Your task to perform on an android device: change notifications settings Image 0: 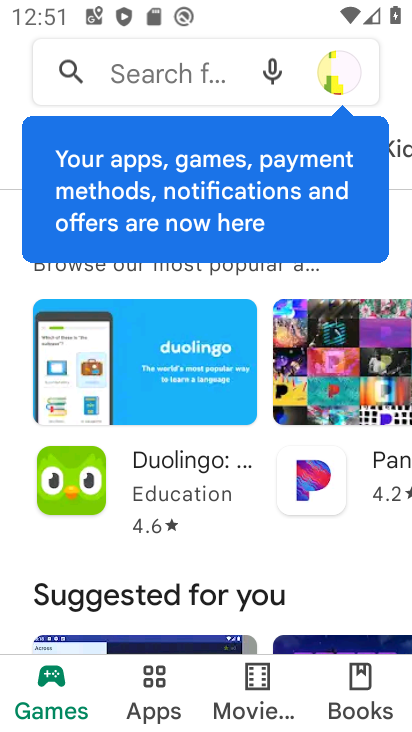
Step 0: press home button
Your task to perform on an android device: change notifications settings Image 1: 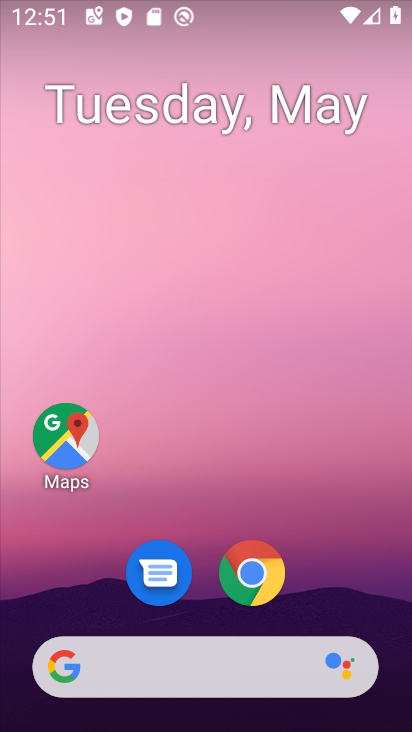
Step 1: drag from (356, 540) to (305, 85)
Your task to perform on an android device: change notifications settings Image 2: 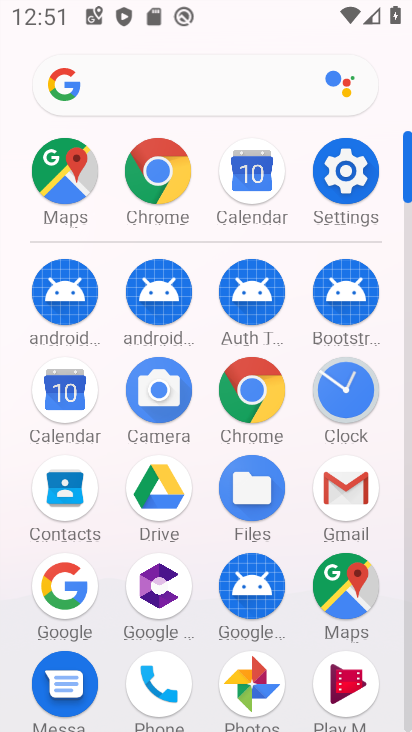
Step 2: click (330, 180)
Your task to perform on an android device: change notifications settings Image 3: 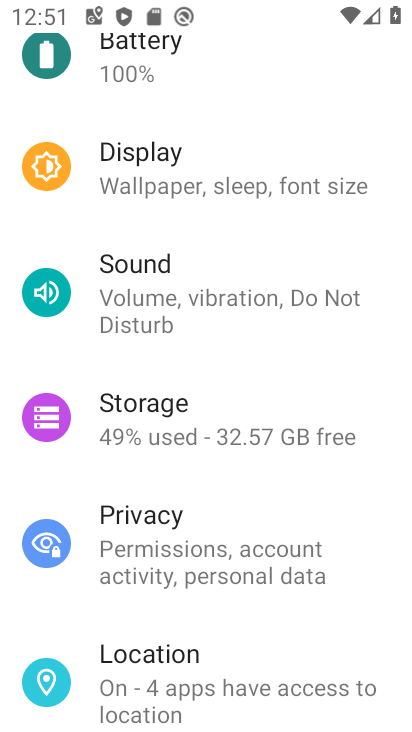
Step 3: drag from (302, 460) to (299, 500)
Your task to perform on an android device: change notifications settings Image 4: 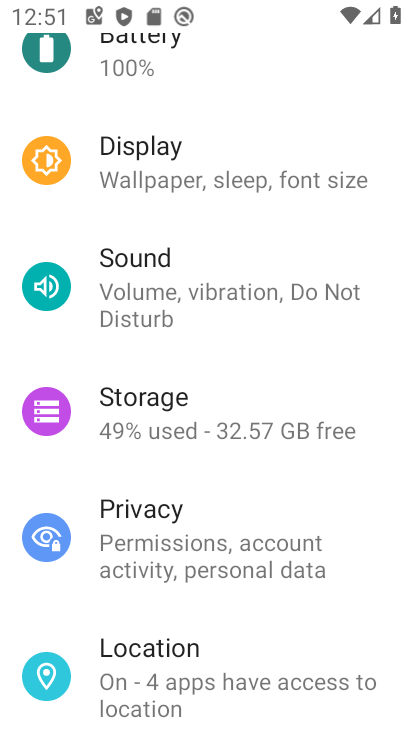
Step 4: drag from (321, 274) to (320, 459)
Your task to perform on an android device: change notifications settings Image 5: 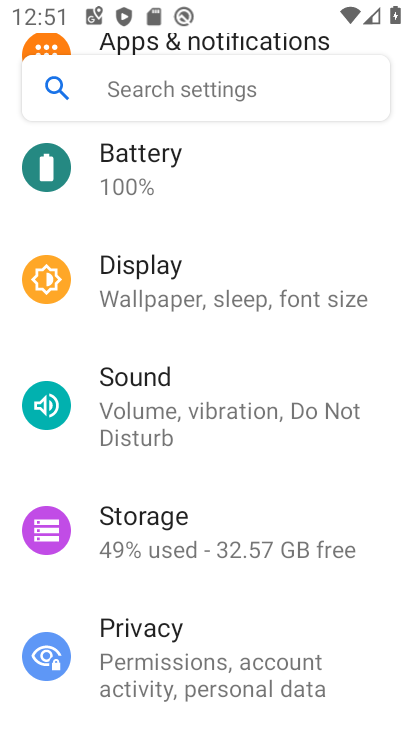
Step 5: drag from (343, 374) to (369, 590)
Your task to perform on an android device: change notifications settings Image 6: 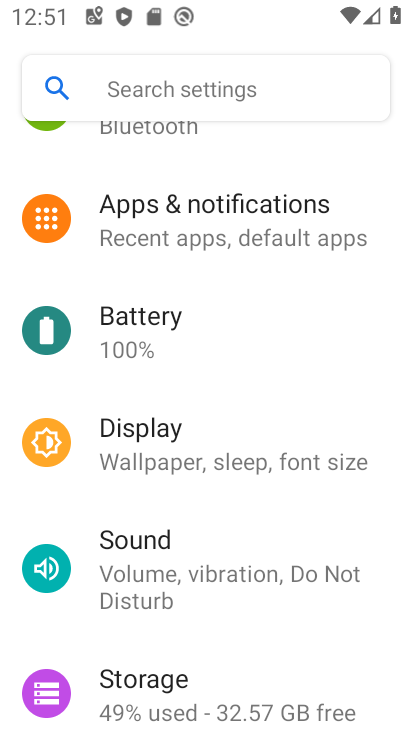
Step 6: click (226, 199)
Your task to perform on an android device: change notifications settings Image 7: 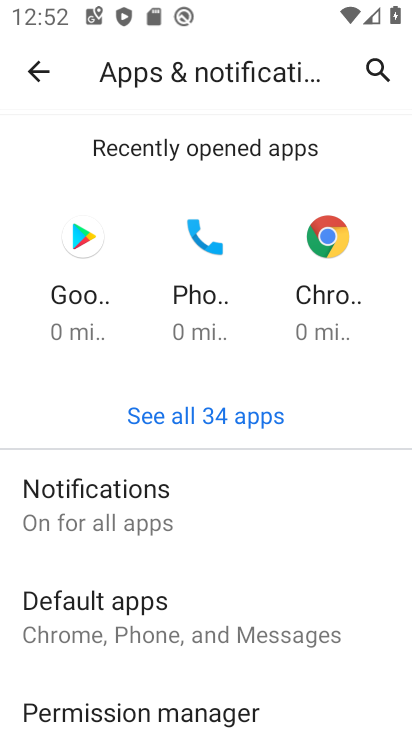
Step 7: click (146, 483)
Your task to perform on an android device: change notifications settings Image 8: 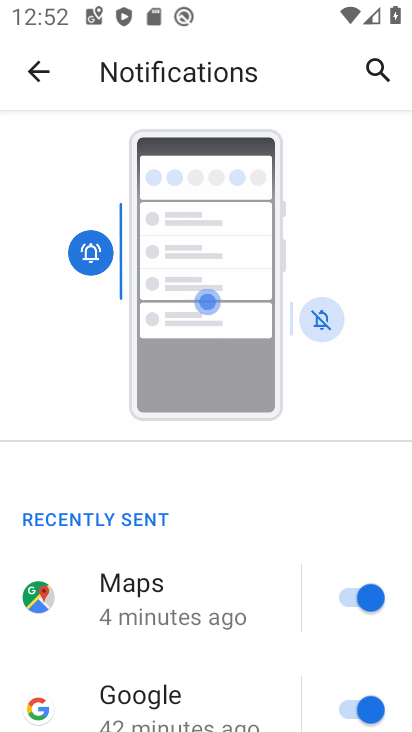
Step 8: drag from (213, 535) to (254, 267)
Your task to perform on an android device: change notifications settings Image 9: 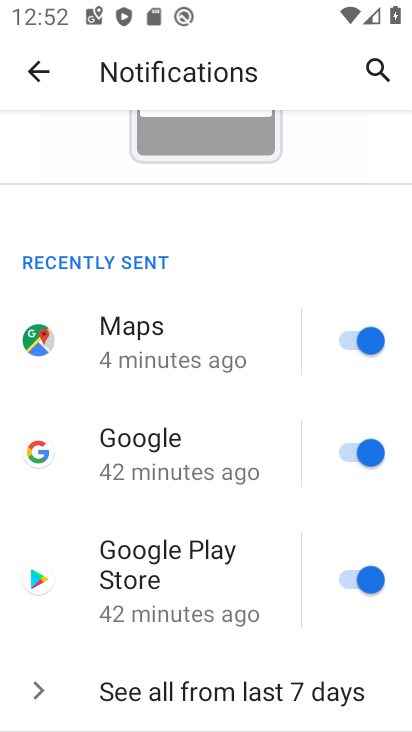
Step 9: click (345, 348)
Your task to perform on an android device: change notifications settings Image 10: 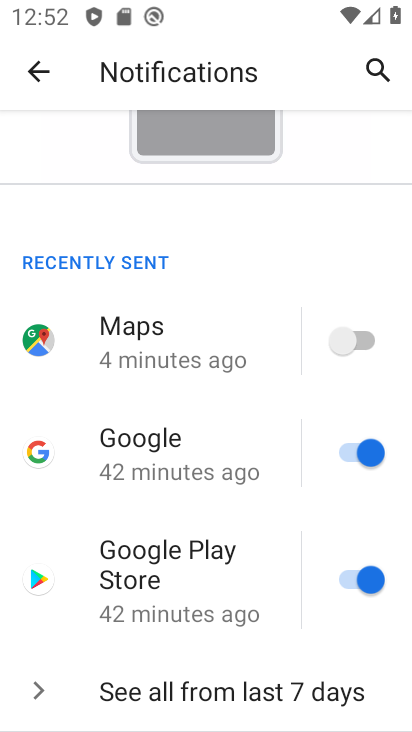
Step 10: task complete